Your task to perform on an android device: toggle airplane mode Image 0: 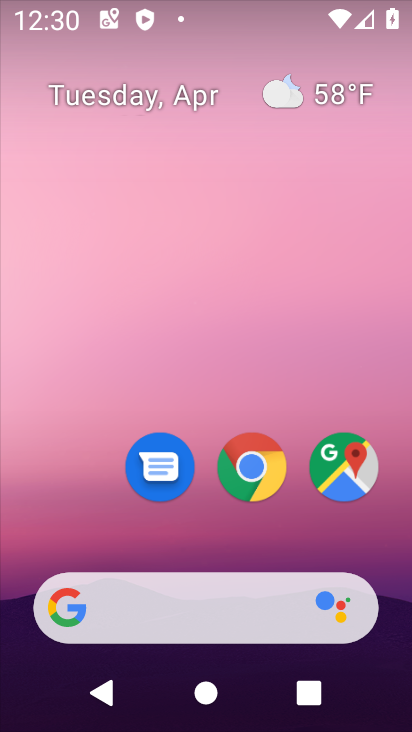
Step 0: drag from (216, 15) to (206, 628)
Your task to perform on an android device: toggle airplane mode Image 1: 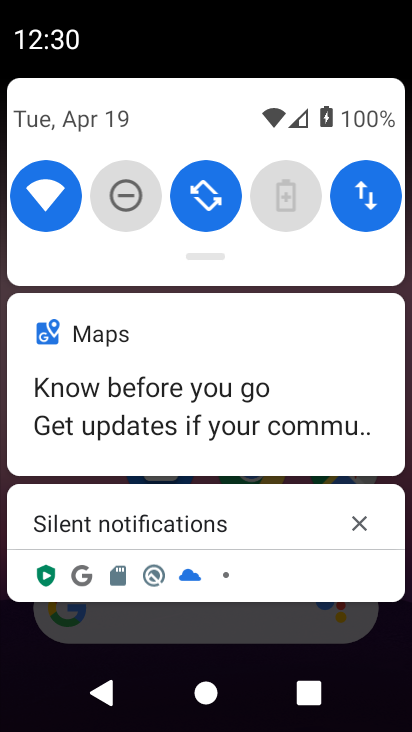
Step 1: drag from (220, 125) to (174, 666)
Your task to perform on an android device: toggle airplane mode Image 2: 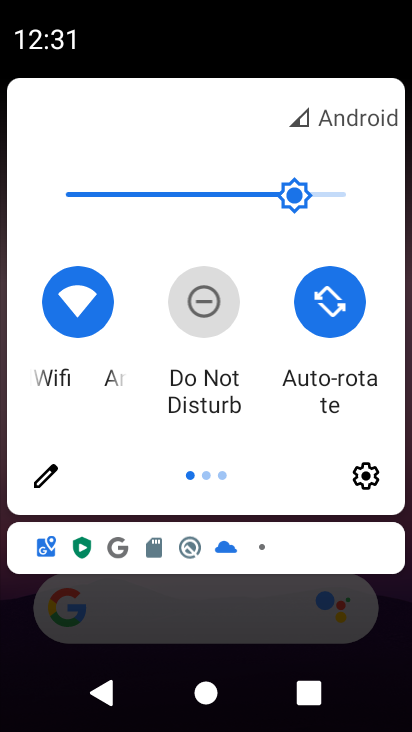
Step 2: drag from (368, 344) to (10, 328)
Your task to perform on an android device: toggle airplane mode Image 3: 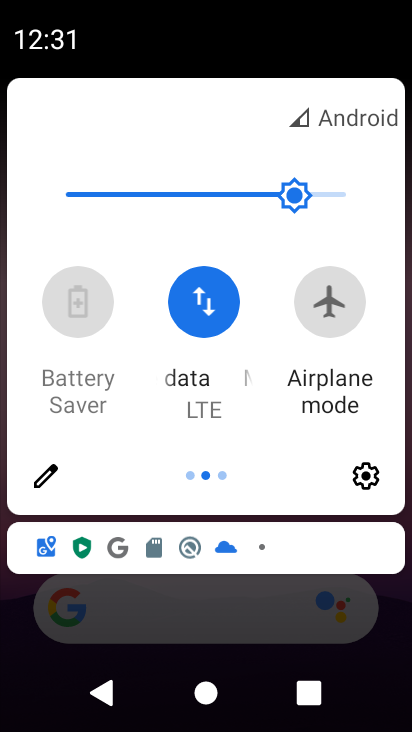
Step 3: click (328, 297)
Your task to perform on an android device: toggle airplane mode Image 4: 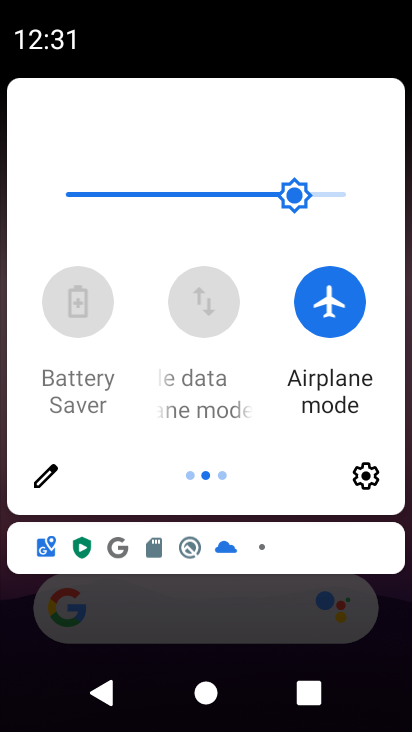
Step 4: click (328, 297)
Your task to perform on an android device: toggle airplane mode Image 5: 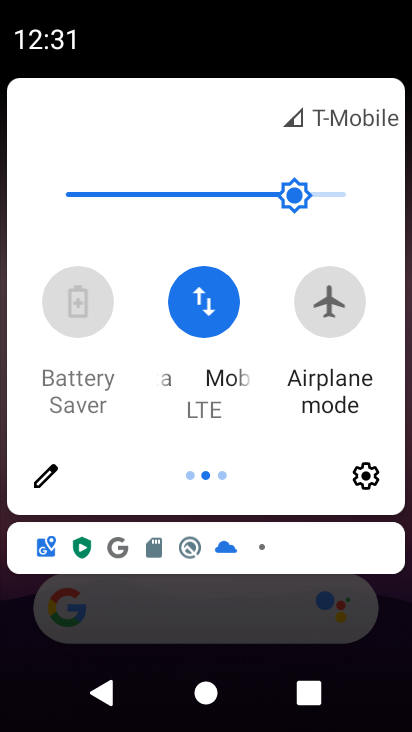
Step 5: task complete